Your task to perform on an android device: toggle show notifications on the lock screen Image 0: 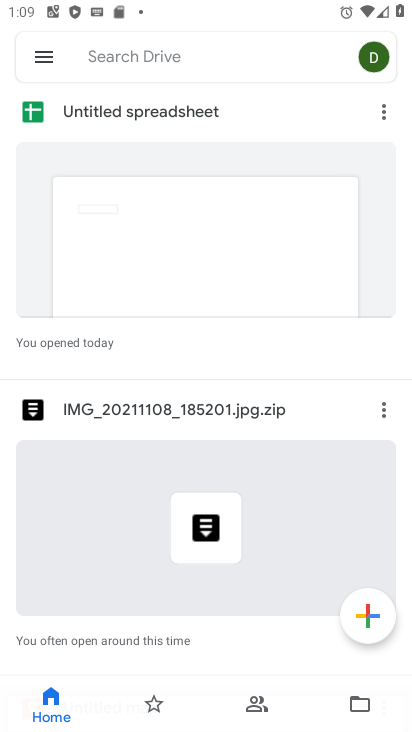
Step 0: press home button
Your task to perform on an android device: toggle show notifications on the lock screen Image 1: 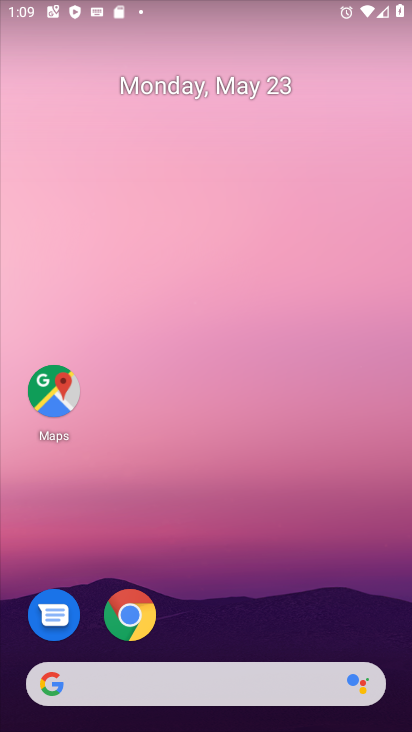
Step 1: drag from (210, 728) to (208, 15)
Your task to perform on an android device: toggle show notifications on the lock screen Image 2: 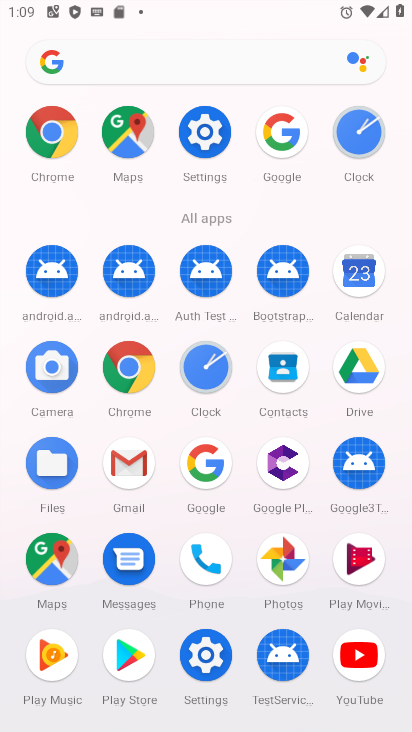
Step 2: click (207, 133)
Your task to perform on an android device: toggle show notifications on the lock screen Image 3: 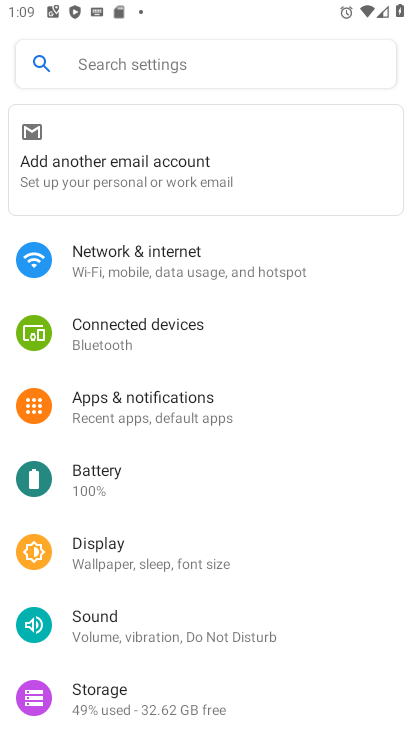
Step 3: click (133, 404)
Your task to perform on an android device: toggle show notifications on the lock screen Image 4: 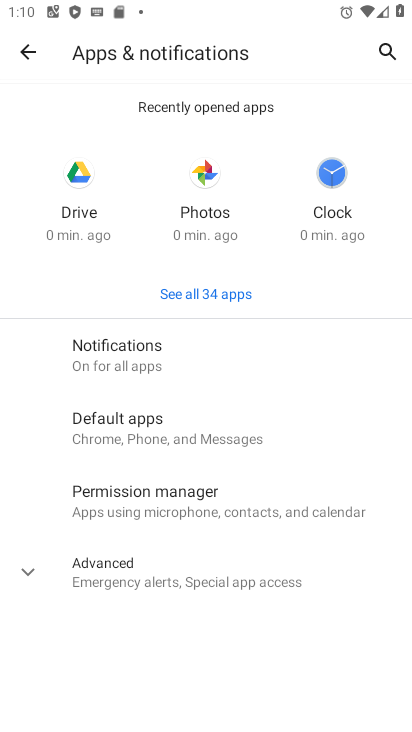
Step 4: click (104, 355)
Your task to perform on an android device: toggle show notifications on the lock screen Image 5: 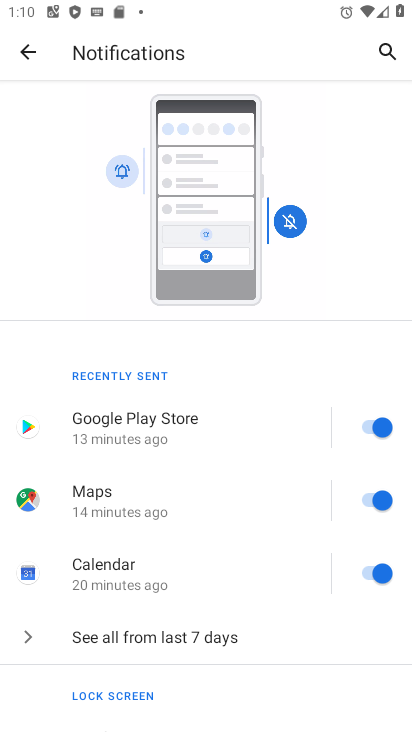
Step 5: drag from (176, 699) to (191, 316)
Your task to perform on an android device: toggle show notifications on the lock screen Image 6: 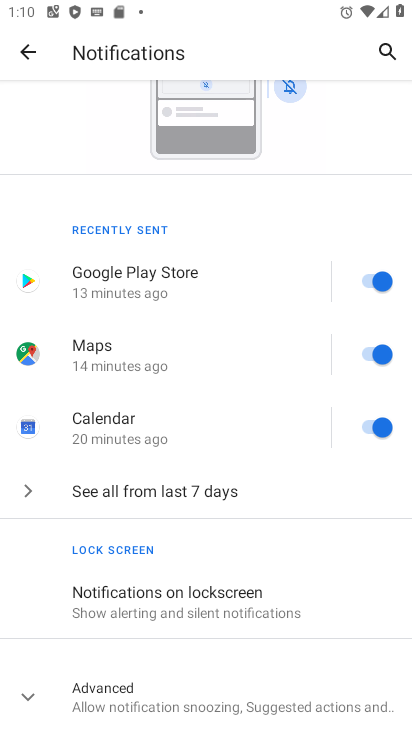
Step 6: click (210, 604)
Your task to perform on an android device: toggle show notifications on the lock screen Image 7: 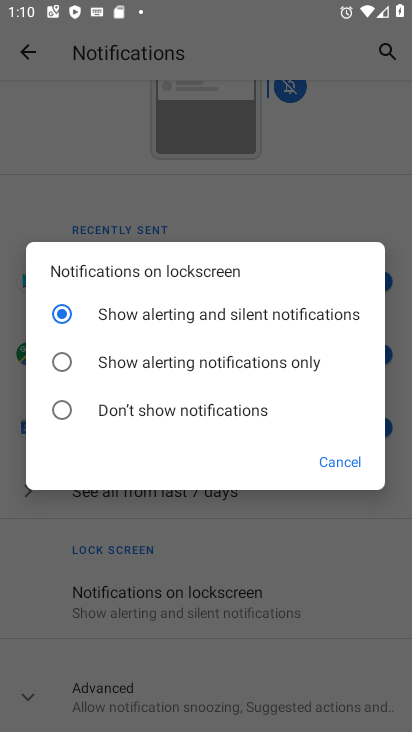
Step 7: click (64, 363)
Your task to perform on an android device: toggle show notifications on the lock screen Image 8: 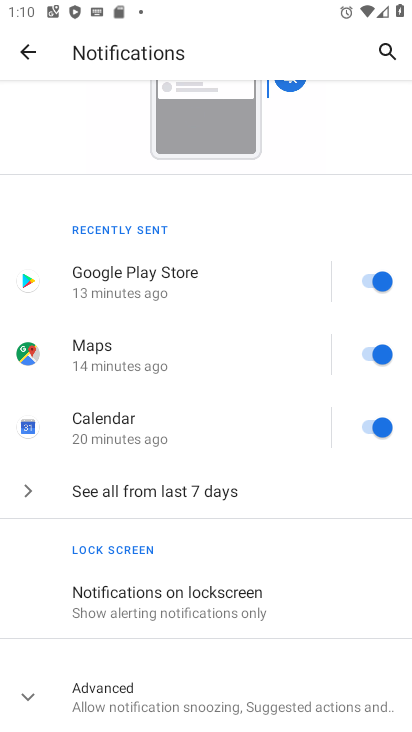
Step 8: task complete